Your task to perform on an android device: Go to settings Image 0: 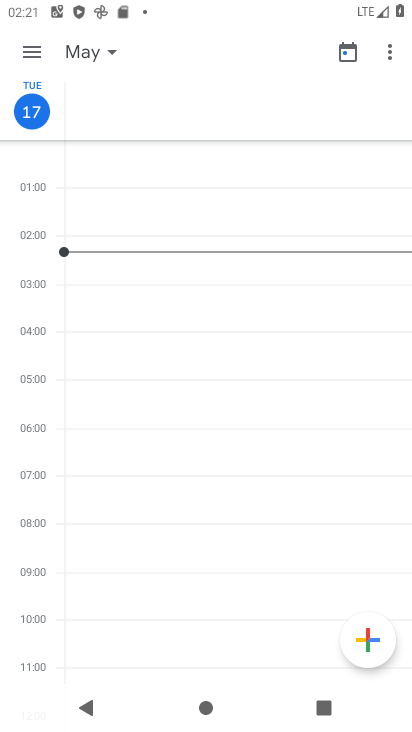
Step 0: press home button
Your task to perform on an android device: Go to settings Image 1: 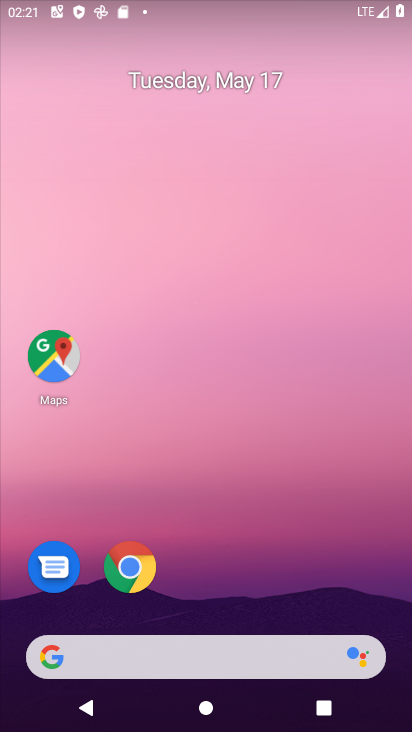
Step 1: drag from (385, 623) to (318, 122)
Your task to perform on an android device: Go to settings Image 2: 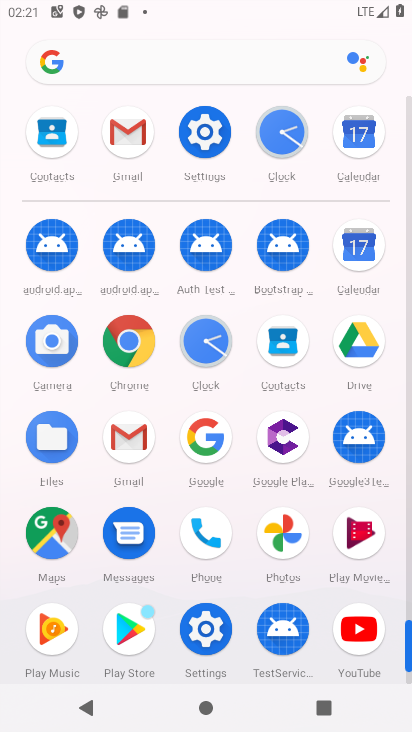
Step 2: click (205, 629)
Your task to perform on an android device: Go to settings Image 3: 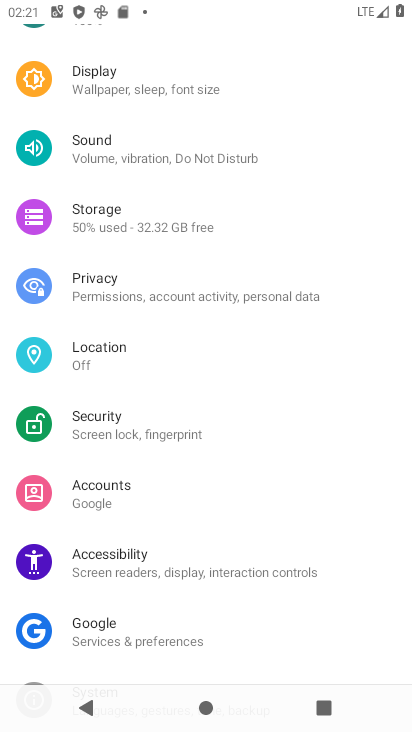
Step 3: task complete